Your task to perform on an android device: Go to CNN.com Image 0: 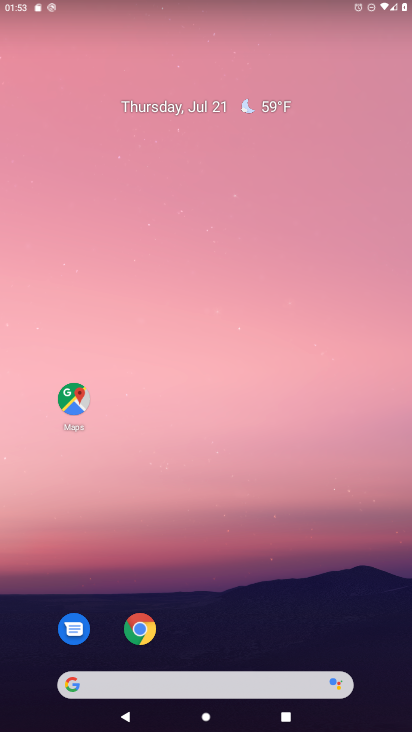
Step 0: click (139, 630)
Your task to perform on an android device: Go to CNN.com Image 1: 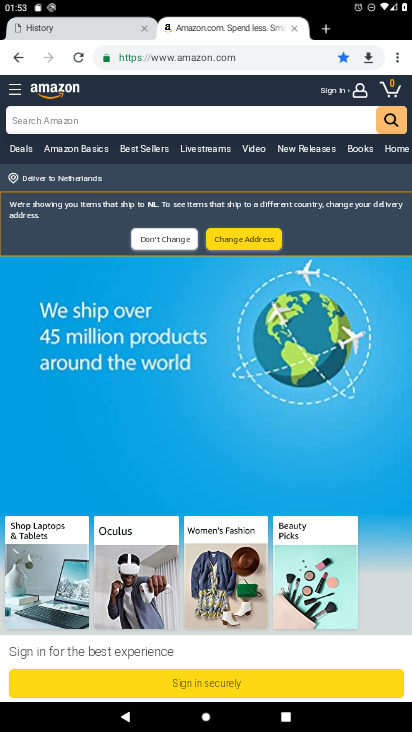
Step 1: click (279, 56)
Your task to perform on an android device: Go to CNN.com Image 2: 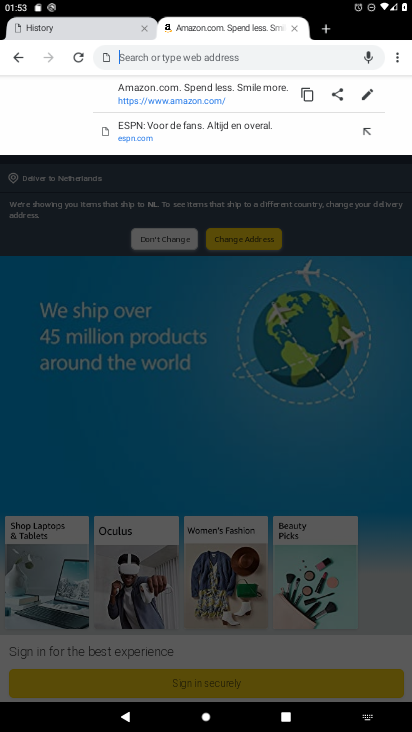
Step 2: type "CNN.com"
Your task to perform on an android device: Go to CNN.com Image 3: 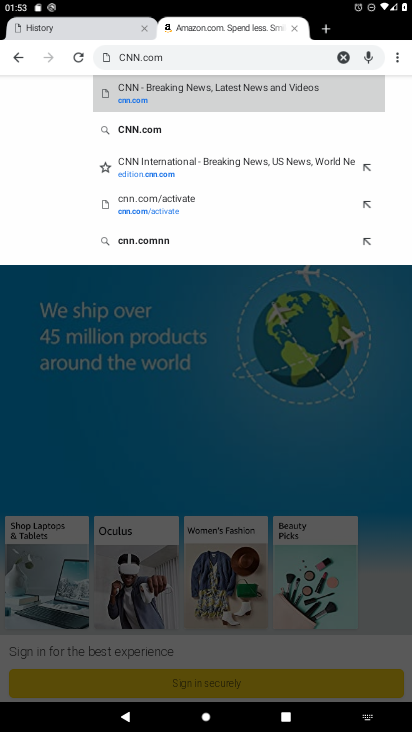
Step 3: click (146, 85)
Your task to perform on an android device: Go to CNN.com Image 4: 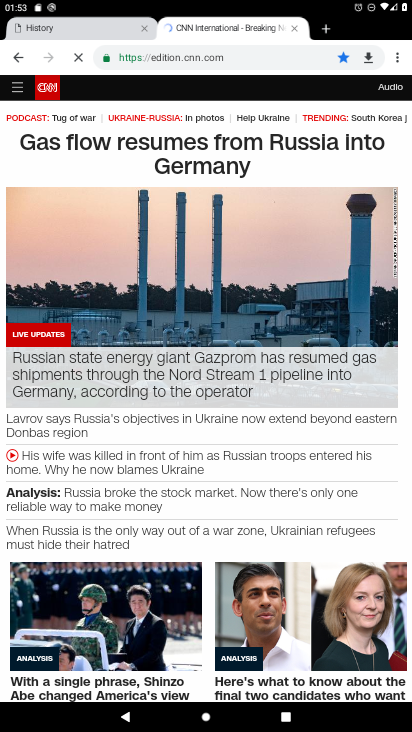
Step 4: drag from (229, 470) to (253, 152)
Your task to perform on an android device: Go to CNN.com Image 5: 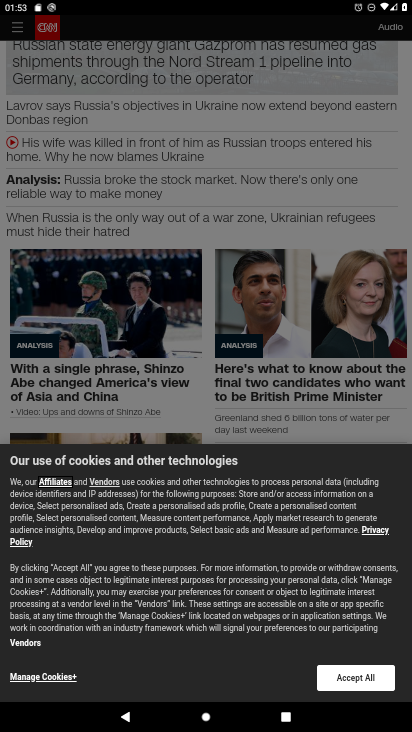
Step 5: click (352, 677)
Your task to perform on an android device: Go to CNN.com Image 6: 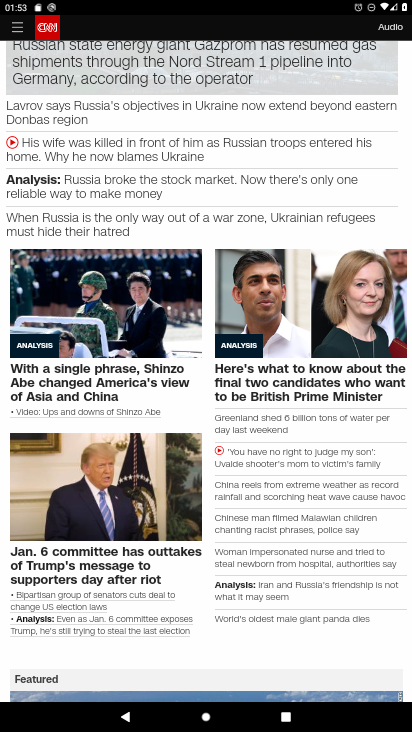
Step 6: task complete